Your task to perform on an android device: toggle priority inbox in the gmail app Image 0: 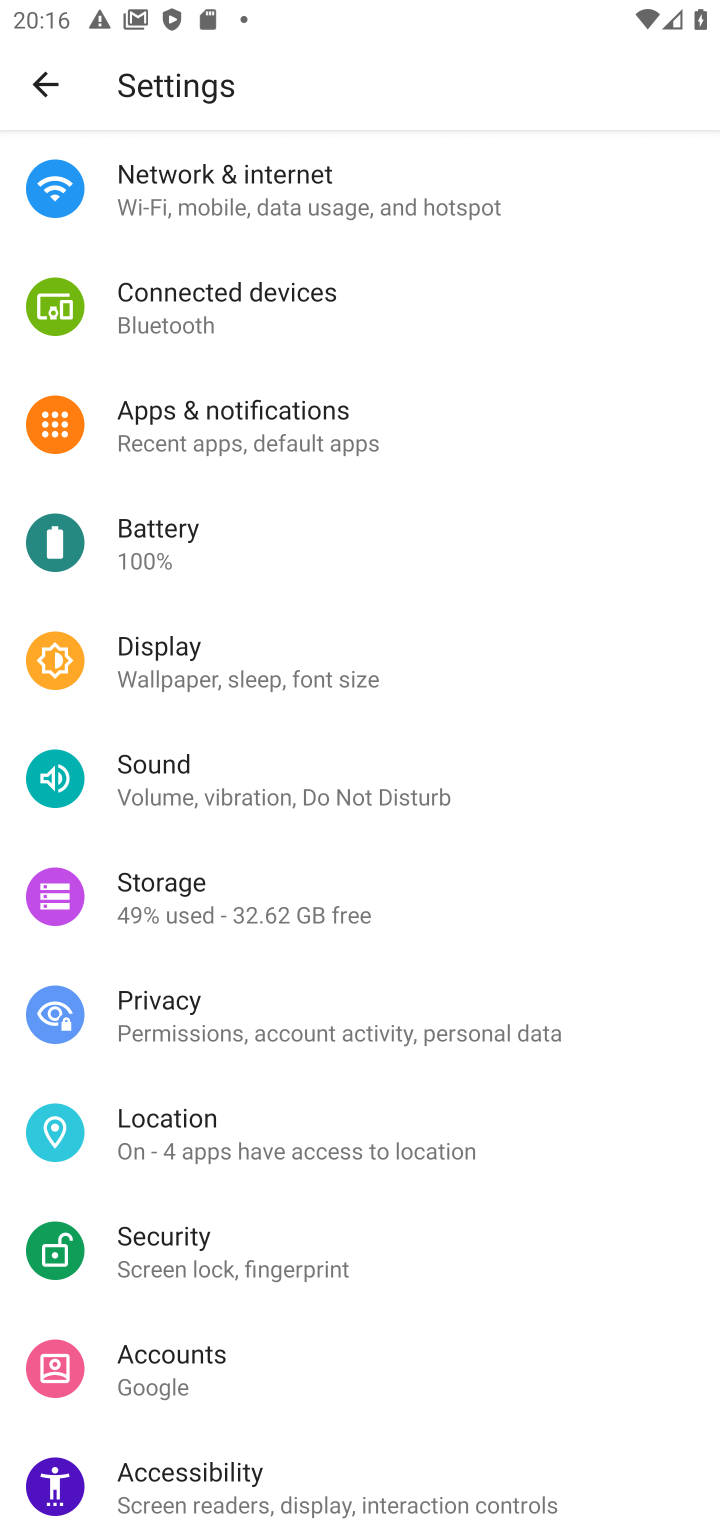
Step 0: press home button
Your task to perform on an android device: toggle priority inbox in the gmail app Image 1: 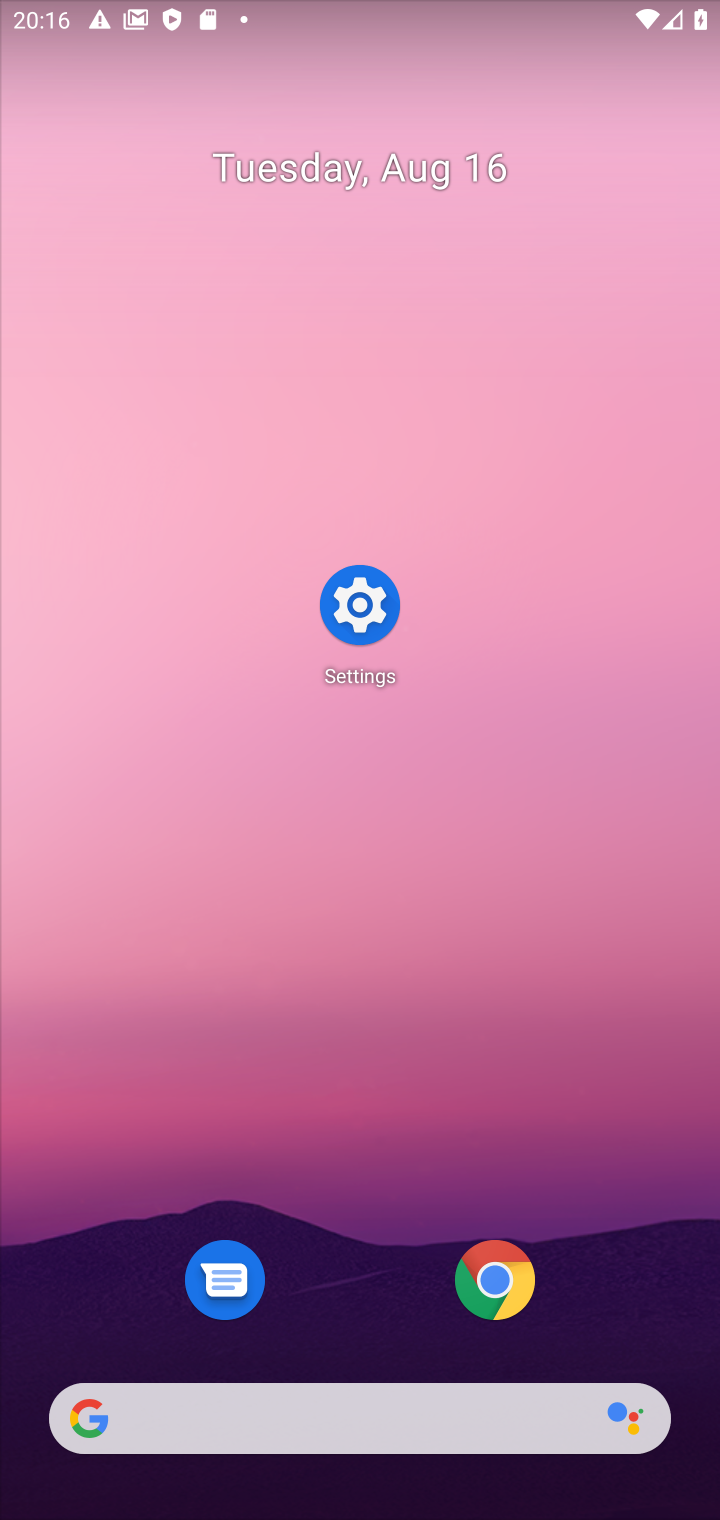
Step 1: drag from (347, 1251) to (414, 371)
Your task to perform on an android device: toggle priority inbox in the gmail app Image 2: 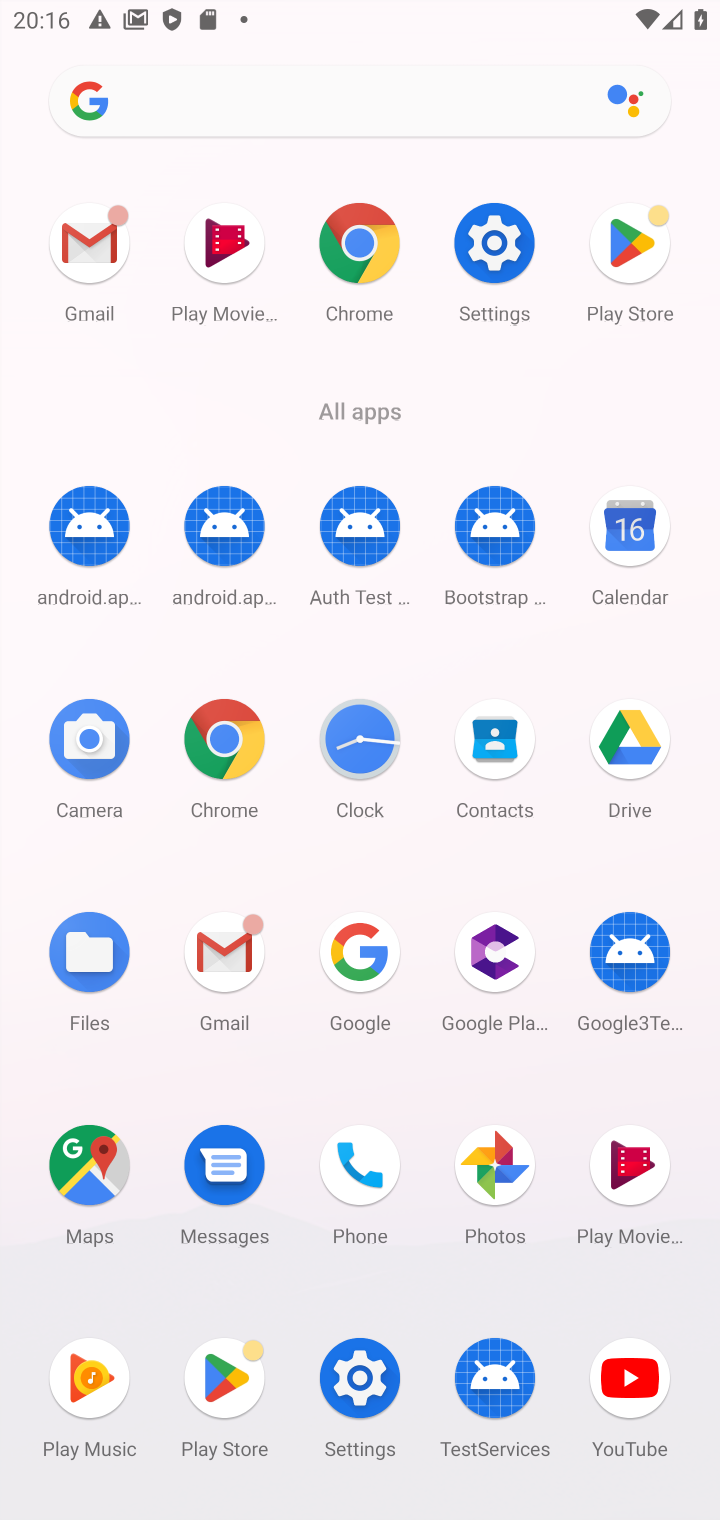
Step 2: click (222, 969)
Your task to perform on an android device: toggle priority inbox in the gmail app Image 3: 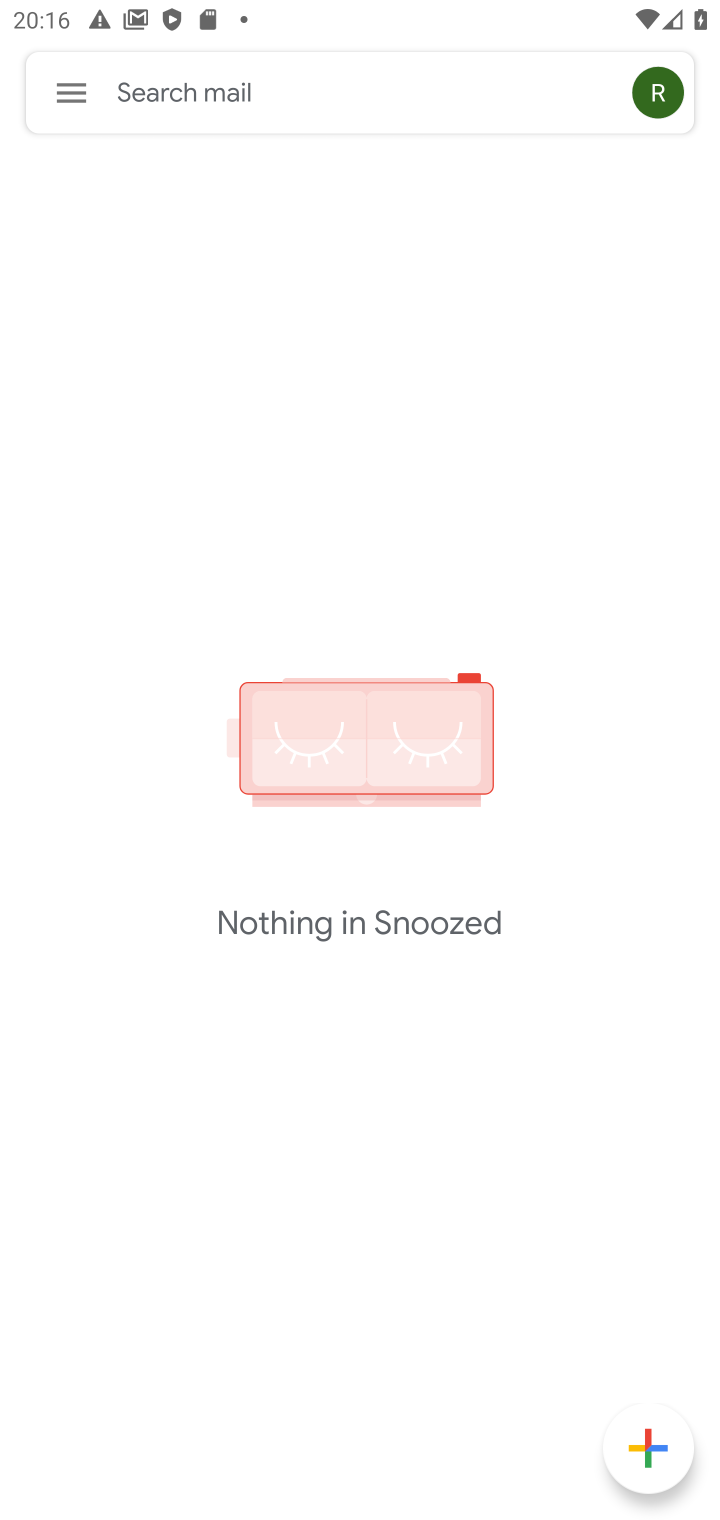
Step 3: click (65, 91)
Your task to perform on an android device: toggle priority inbox in the gmail app Image 4: 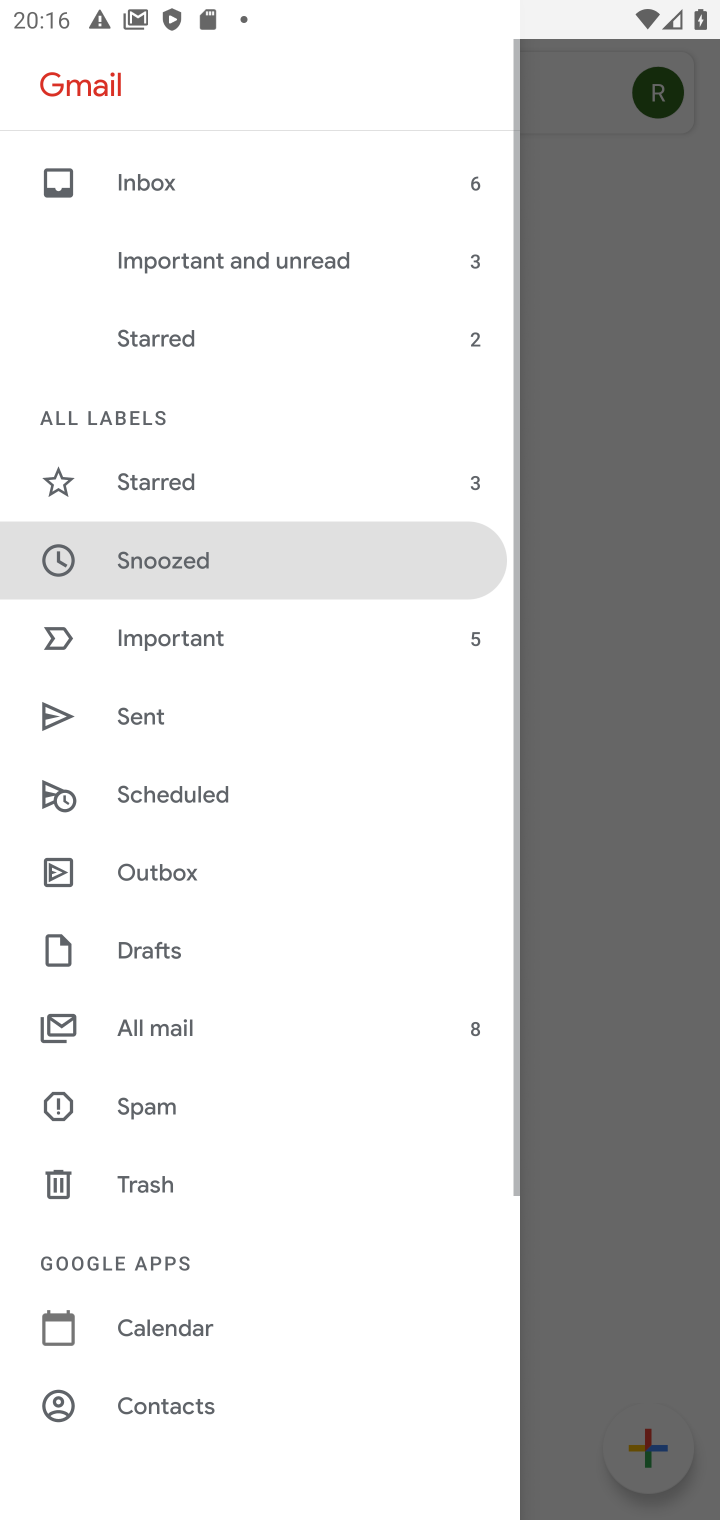
Step 4: drag from (202, 1204) to (241, 837)
Your task to perform on an android device: toggle priority inbox in the gmail app Image 5: 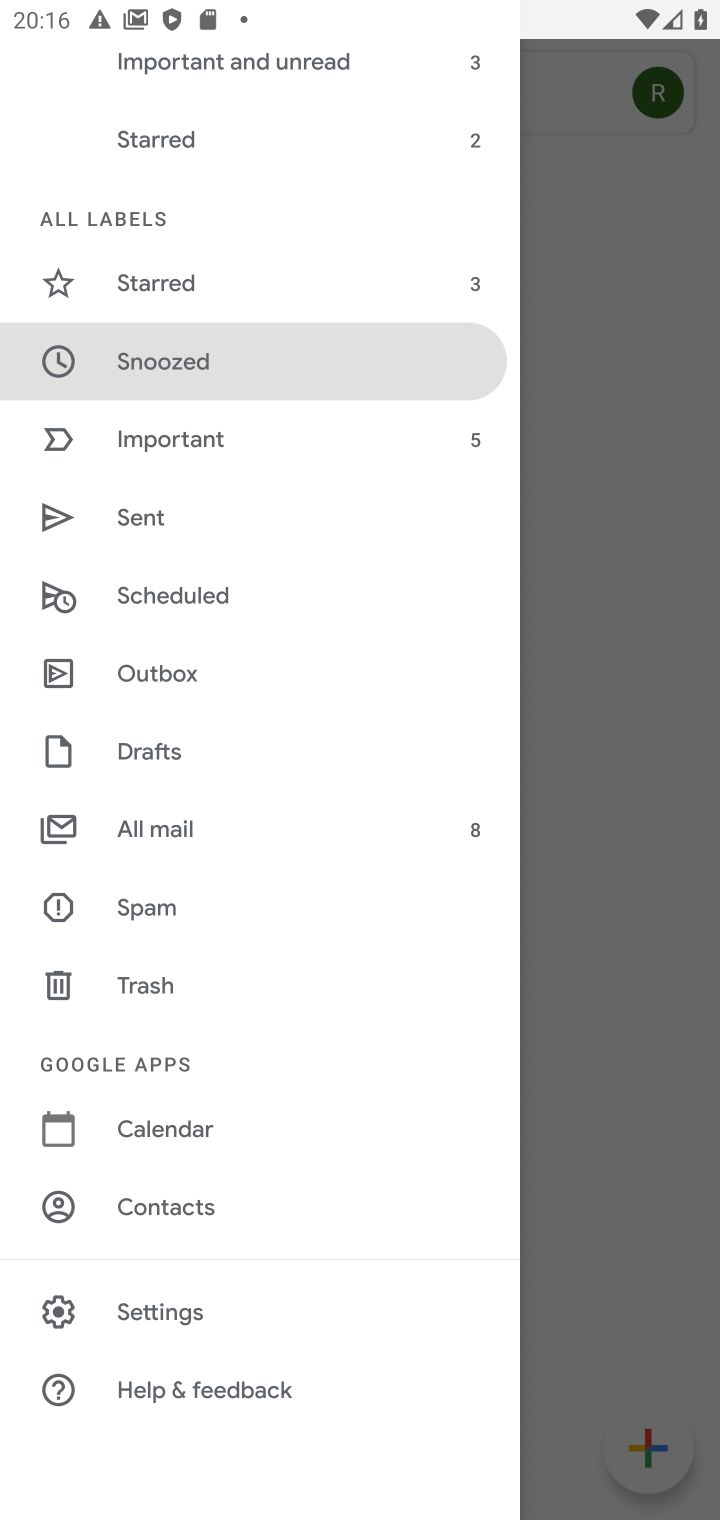
Step 5: click (181, 1323)
Your task to perform on an android device: toggle priority inbox in the gmail app Image 6: 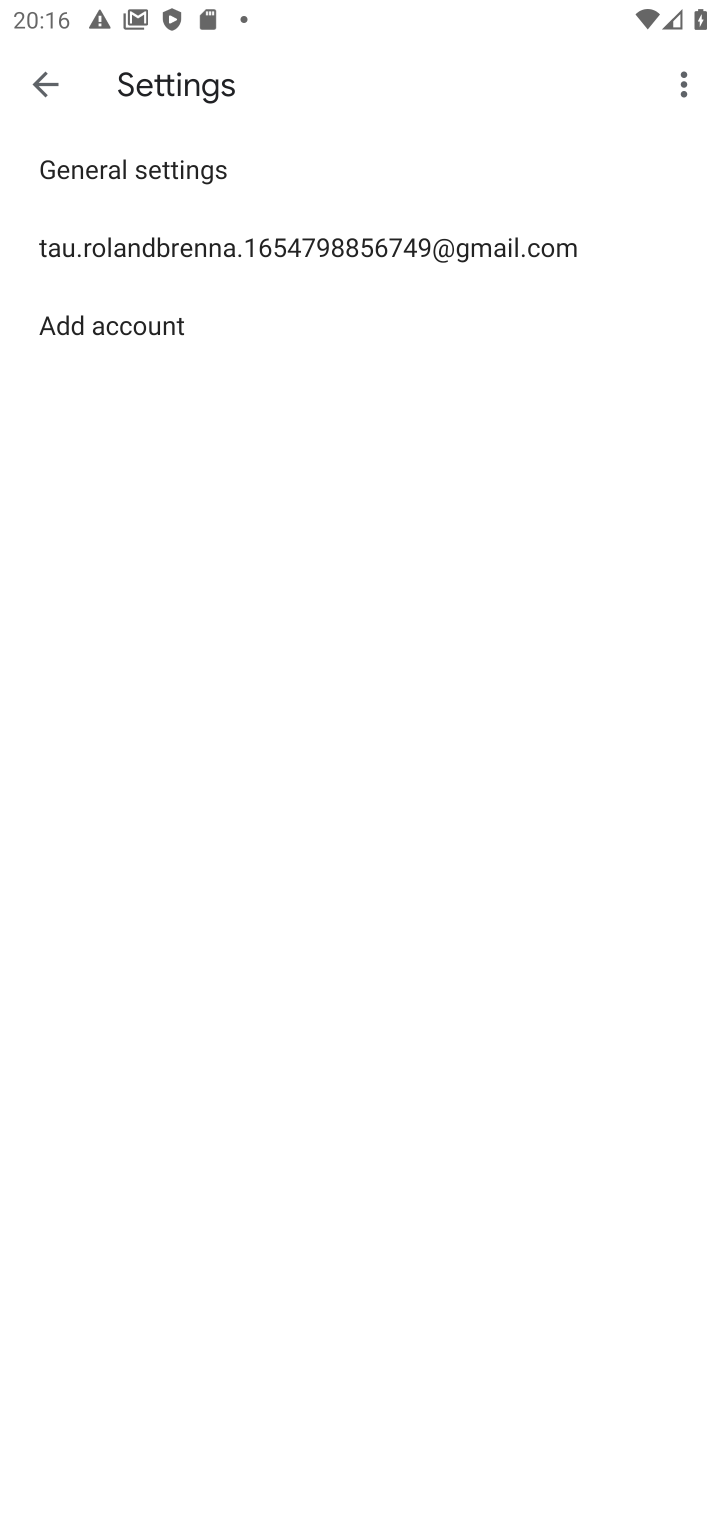
Step 6: click (188, 248)
Your task to perform on an android device: toggle priority inbox in the gmail app Image 7: 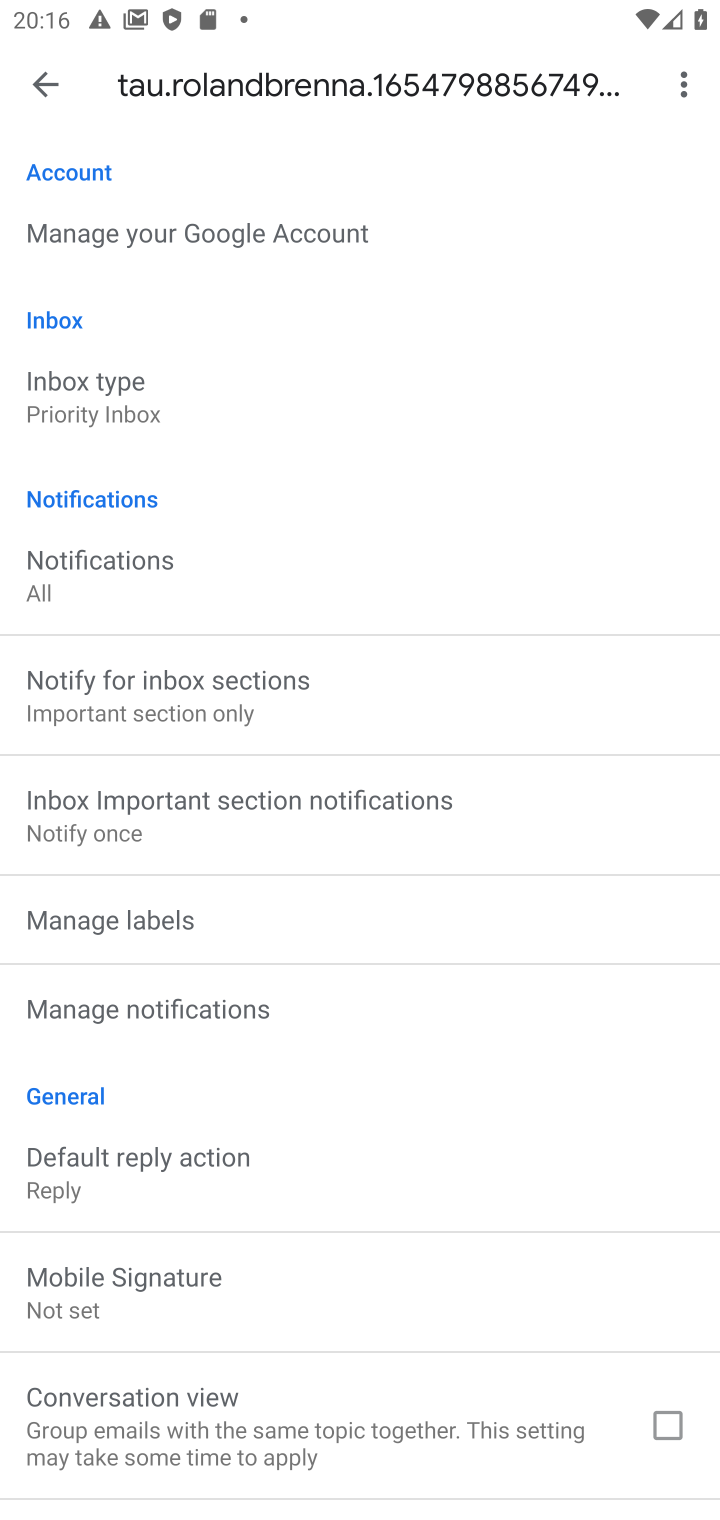
Step 7: click (108, 405)
Your task to perform on an android device: toggle priority inbox in the gmail app Image 8: 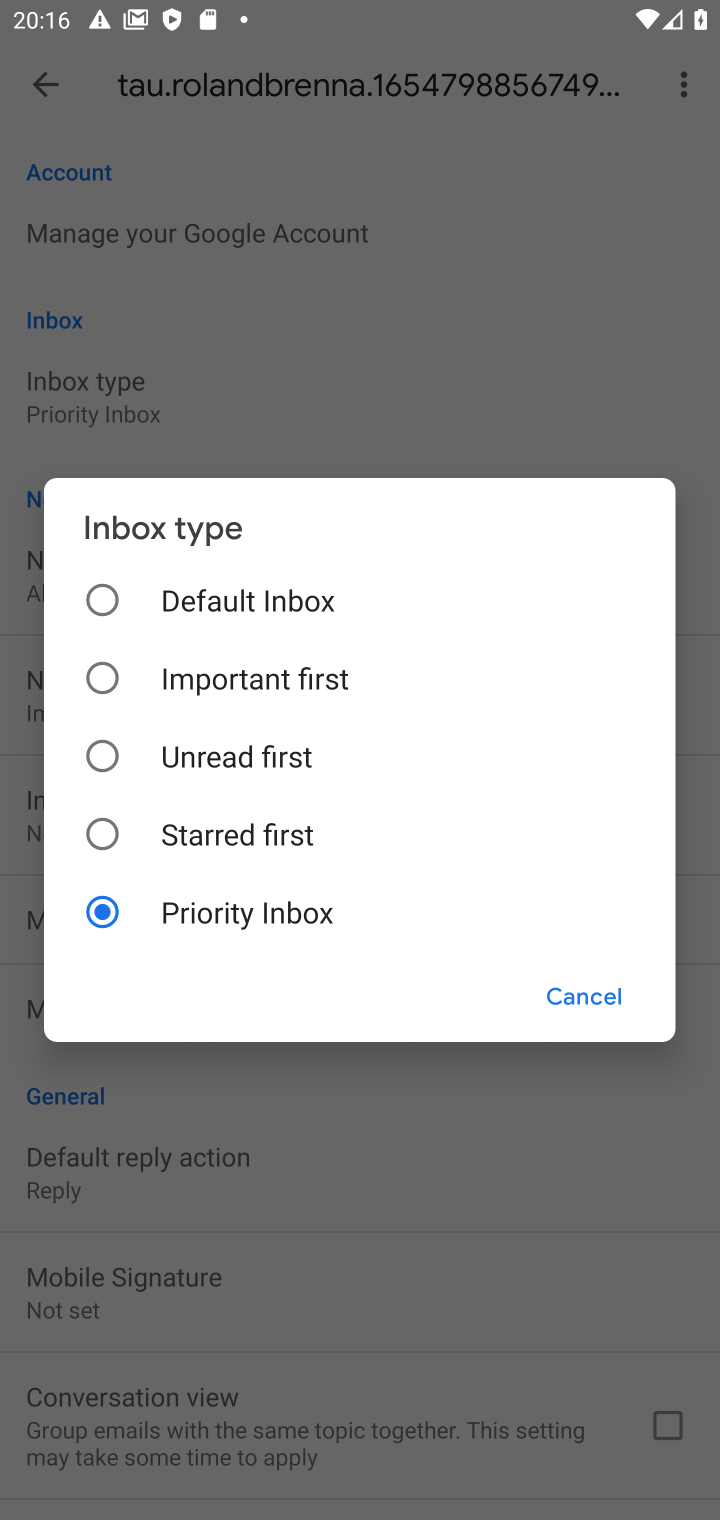
Step 8: click (252, 612)
Your task to perform on an android device: toggle priority inbox in the gmail app Image 9: 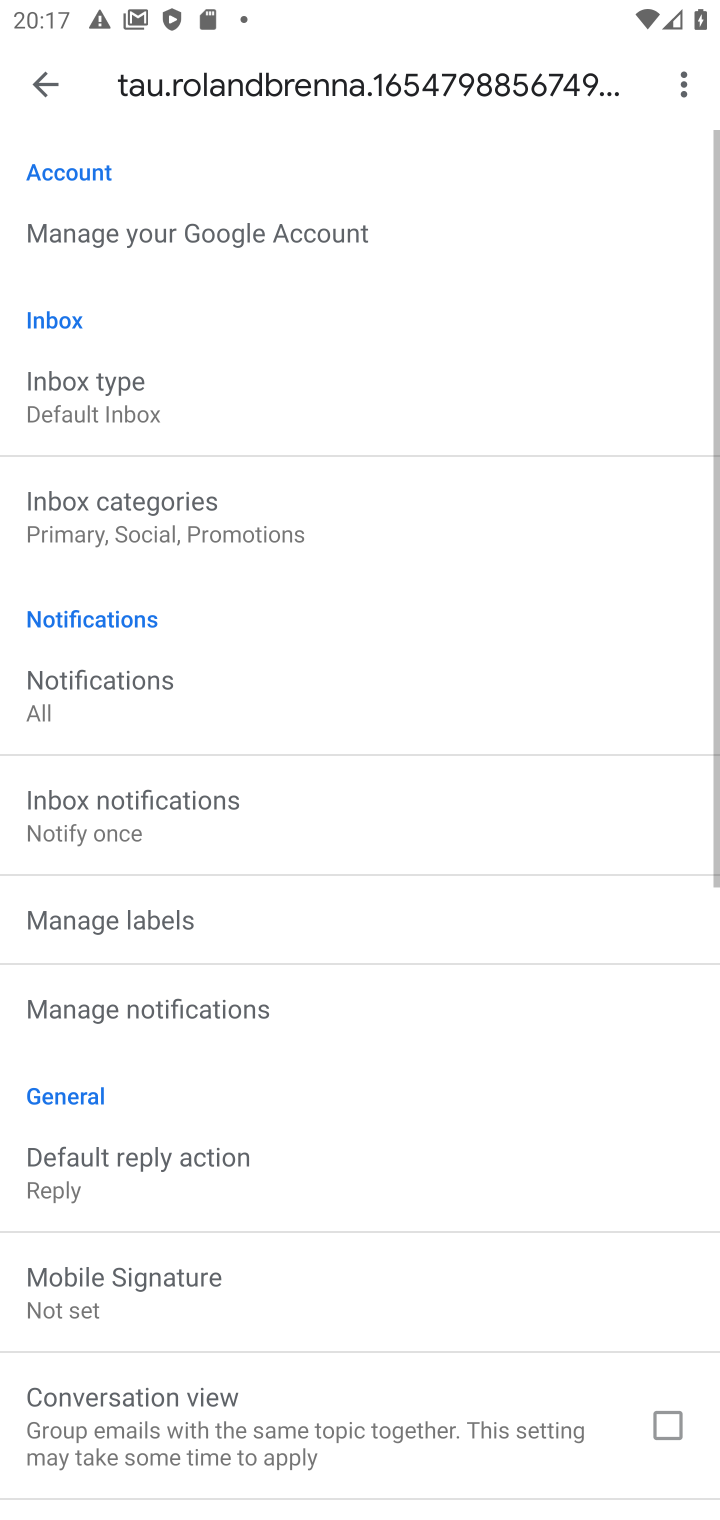
Step 9: task complete